Your task to perform on an android device: refresh tabs in the chrome app Image 0: 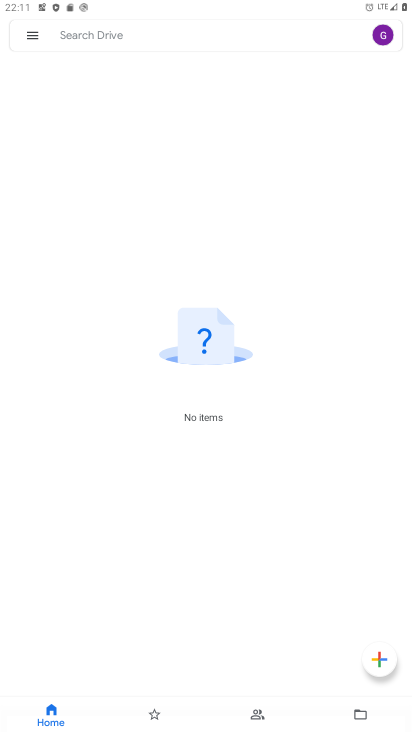
Step 0: press home button
Your task to perform on an android device: refresh tabs in the chrome app Image 1: 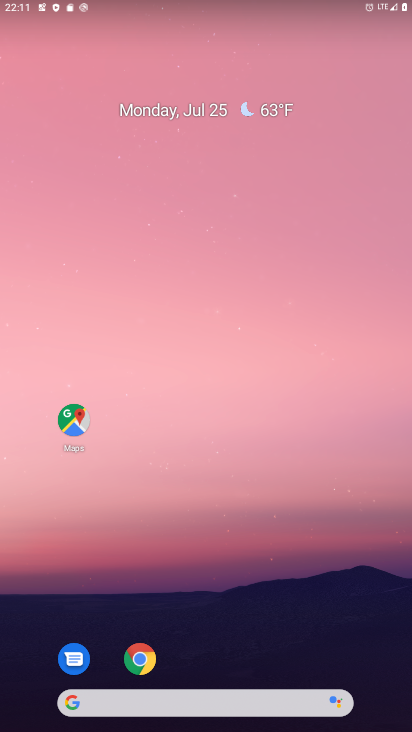
Step 1: click (143, 656)
Your task to perform on an android device: refresh tabs in the chrome app Image 2: 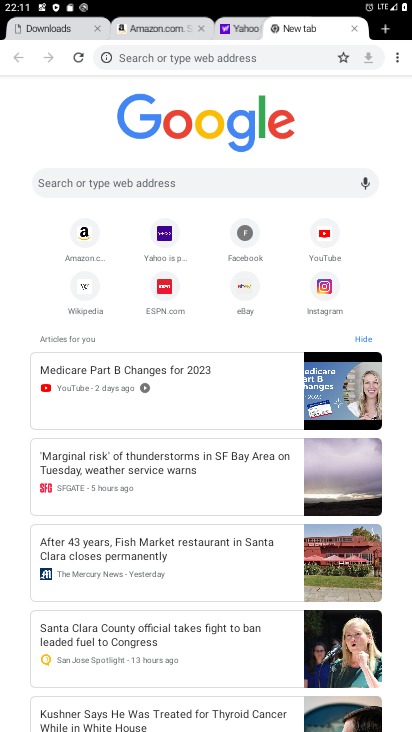
Step 2: click (77, 55)
Your task to perform on an android device: refresh tabs in the chrome app Image 3: 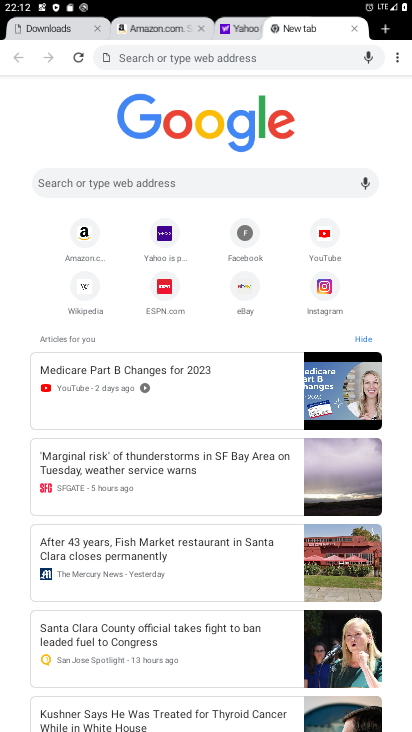
Step 3: task complete